Your task to perform on an android device: What's the weather going to be this weekend? Image 0: 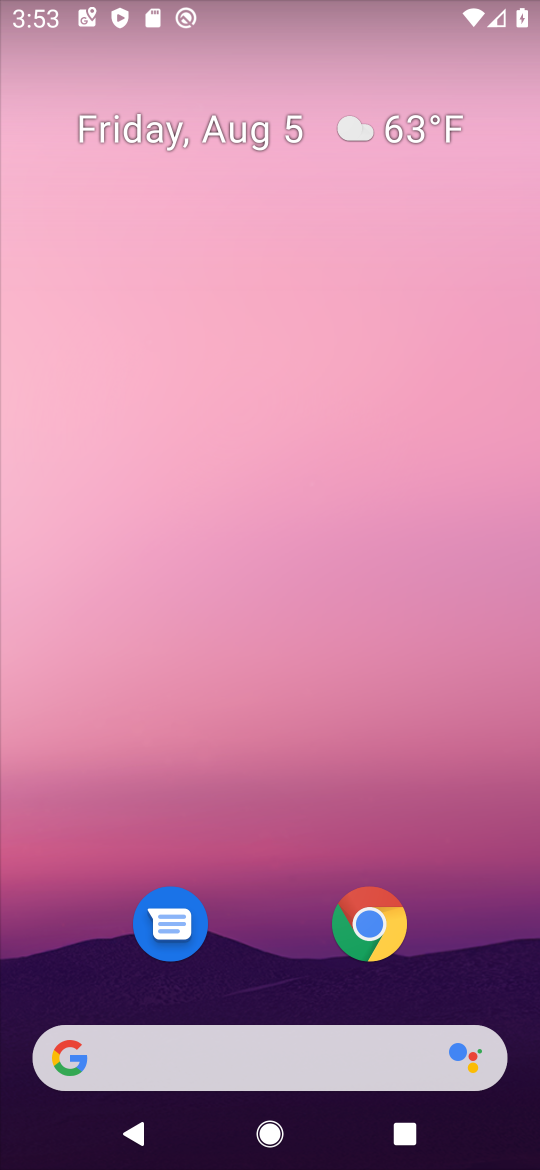
Step 0: drag from (294, 892) to (298, 84)
Your task to perform on an android device: What's the weather going to be this weekend? Image 1: 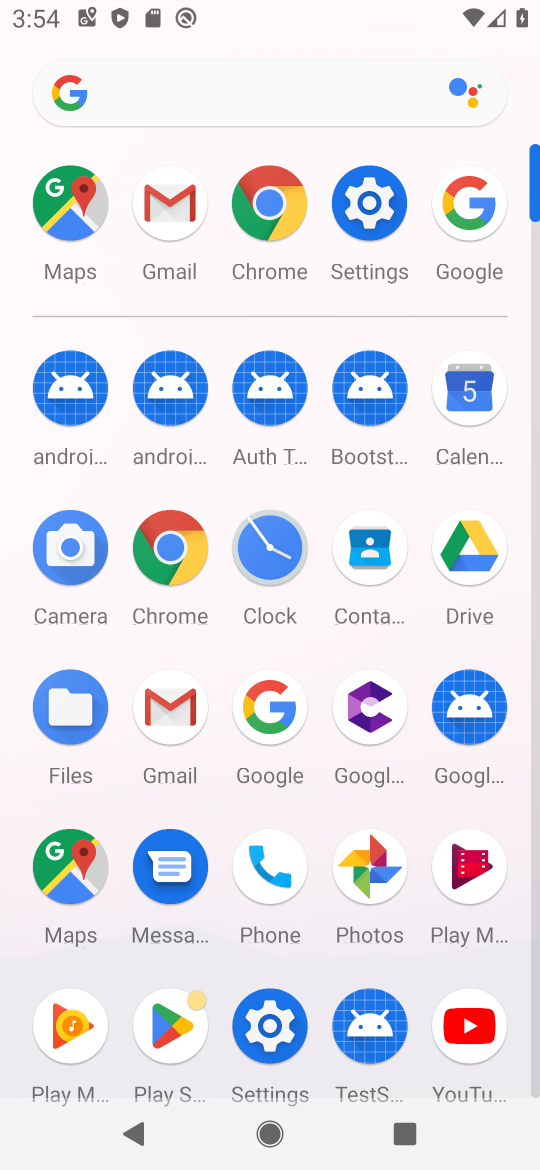
Step 1: click (180, 547)
Your task to perform on an android device: What's the weather going to be this weekend? Image 2: 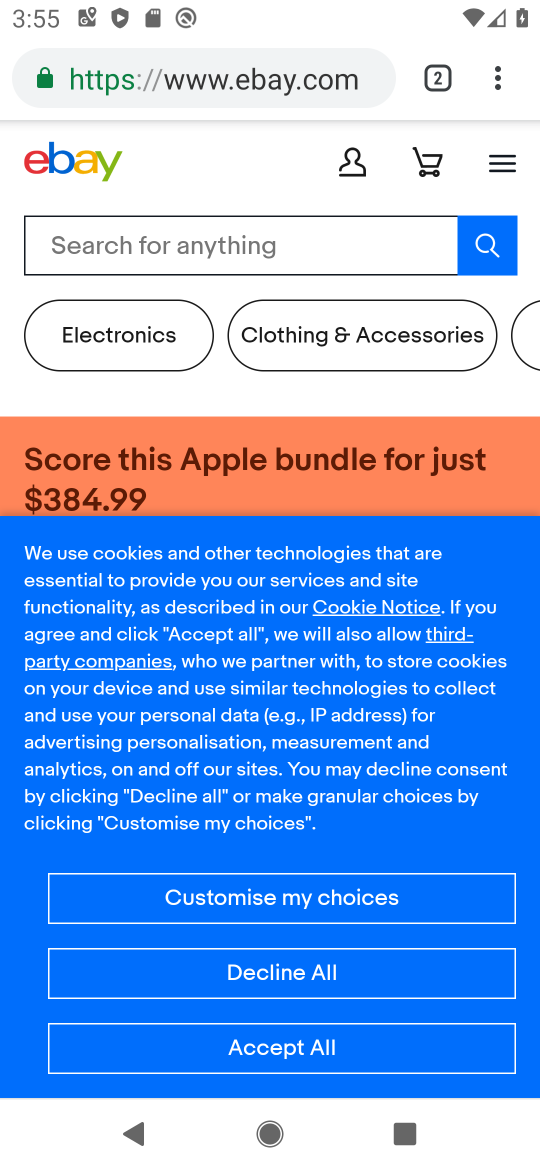
Step 2: click (453, 80)
Your task to perform on an android device: What's the weather going to be this weekend? Image 3: 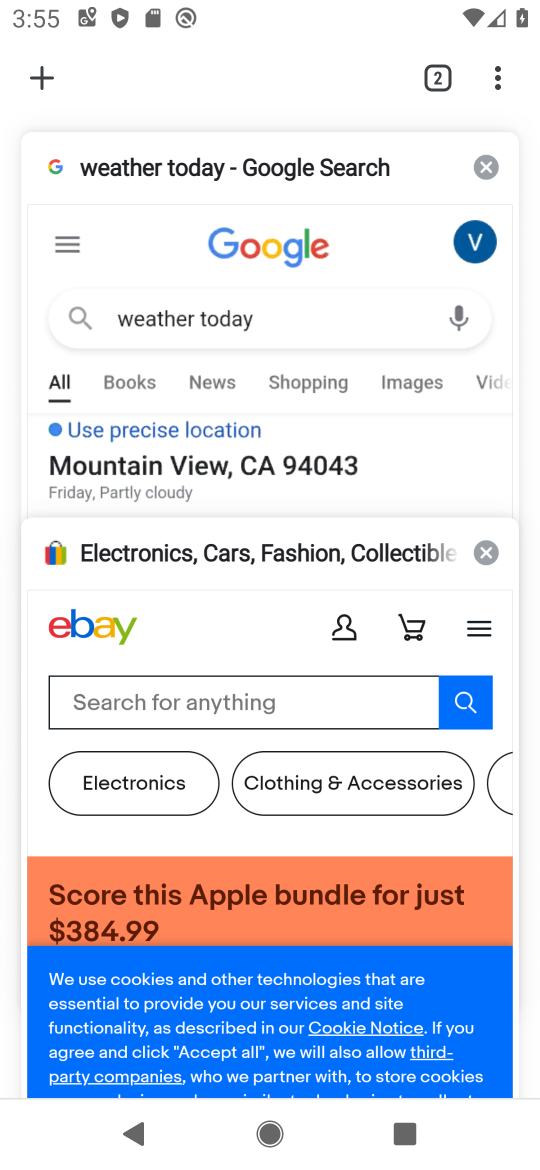
Step 3: click (248, 228)
Your task to perform on an android device: What's the weather going to be this weekend? Image 4: 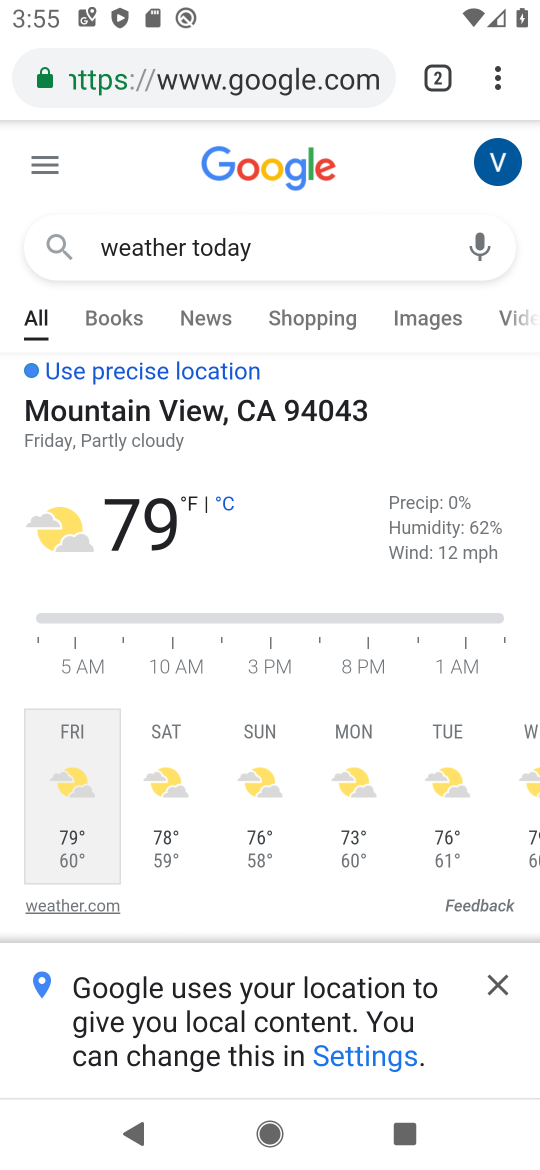
Step 4: task complete